Your task to perform on an android device: Clear the cart on amazon.com. Add "razer naga" to the cart on amazon.com, then select checkout. Image 0: 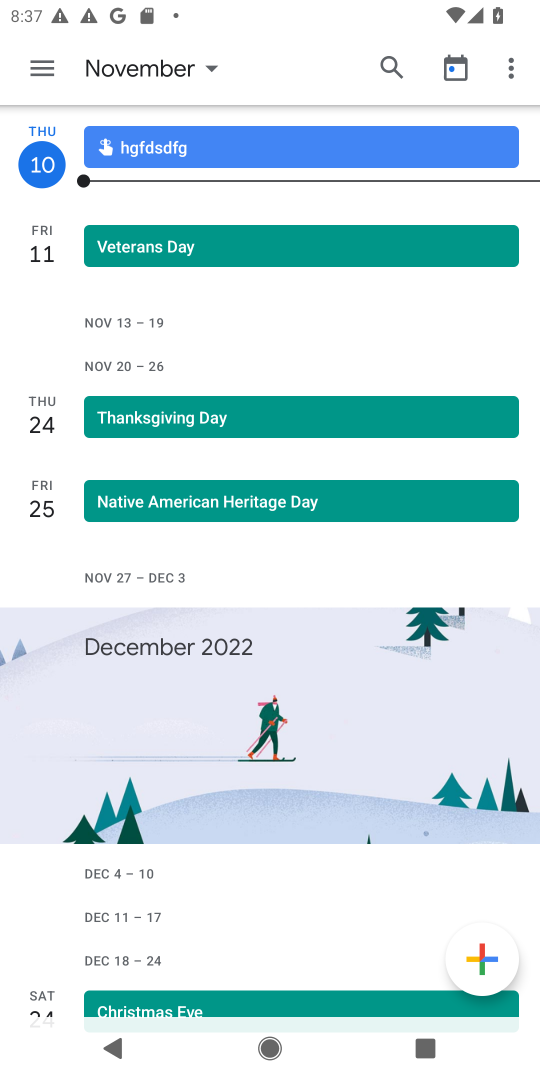
Step 0: press home button
Your task to perform on an android device: Clear the cart on amazon.com. Add "razer naga" to the cart on amazon.com, then select checkout. Image 1: 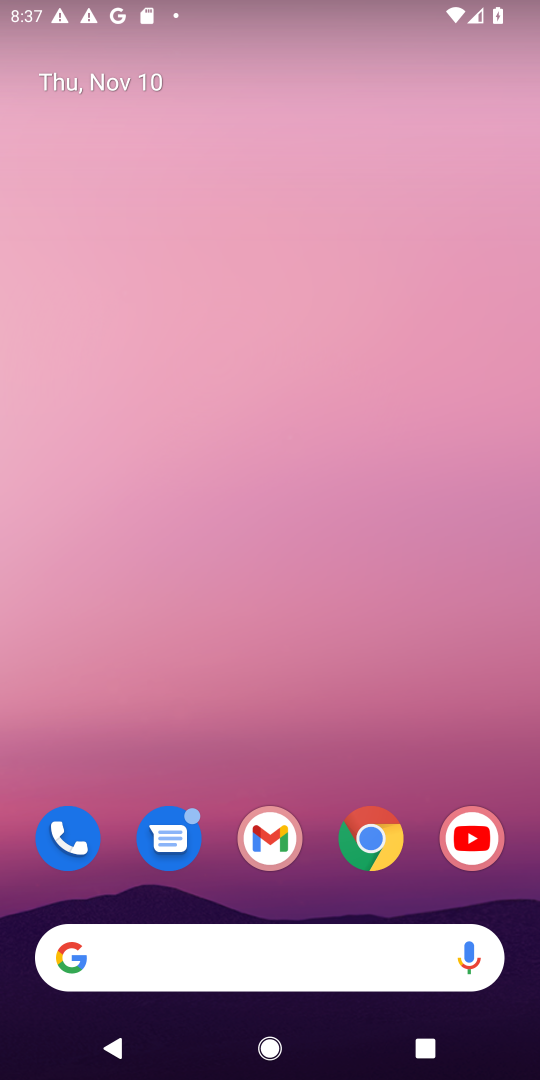
Step 1: drag from (327, 905) to (346, 3)
Your task to perform on an android device: Clear the cart on amazon.com. Add "razer naga" to the cart on amazon.com, then select checkout. Image 2: 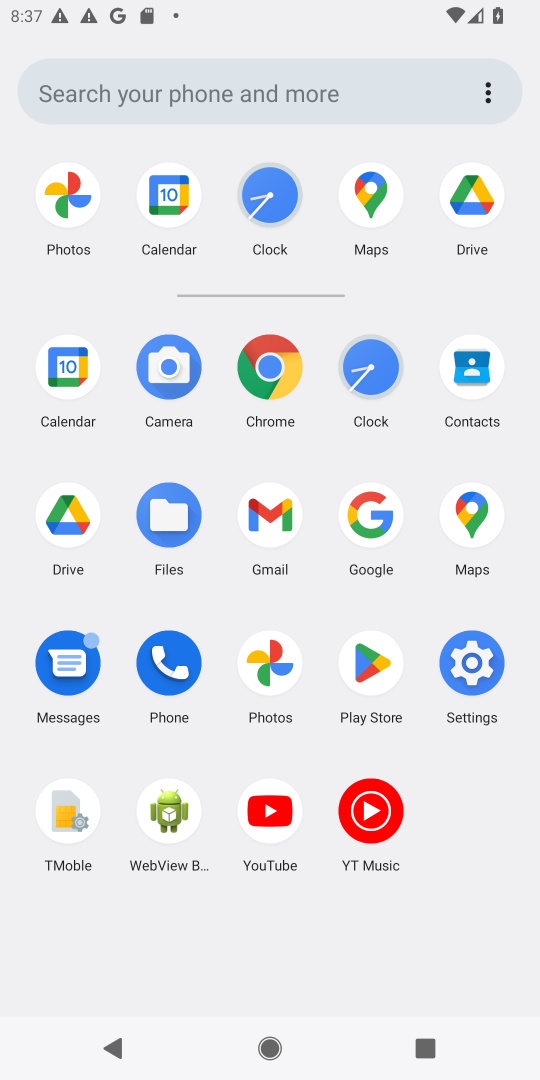
Step 2: click (281, 366)
Your task to perform on an android device: Clear the cart on amazon.com. Add "razer naga" to the cart on amazon.com, then select checkout. Image 3: 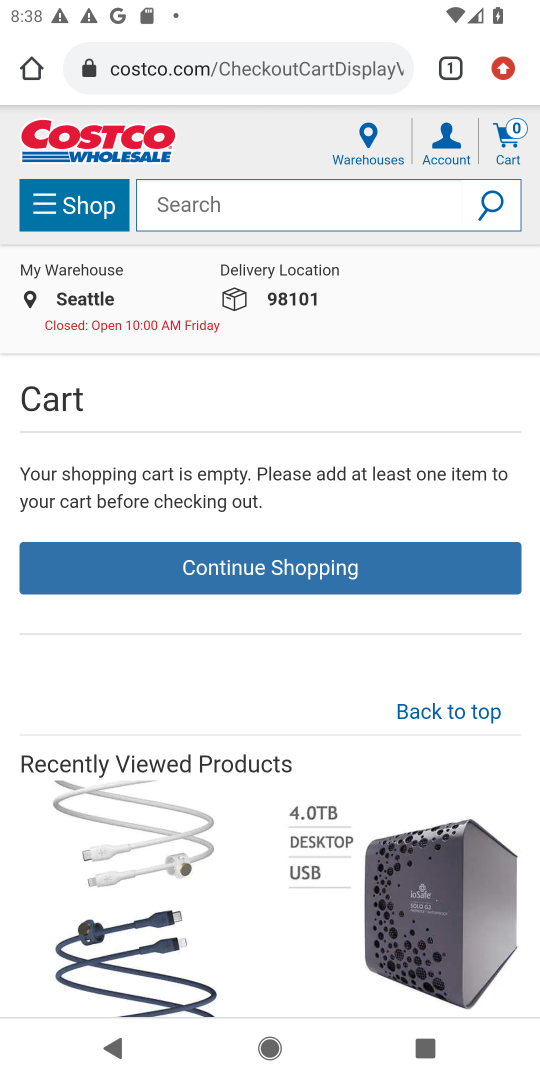
Step 3: click (300, 75)
Your task to perform on an android device: Clear the cart on amazon.com. Add "razer naga" to the cart on amazon.com, then select checkout. Image 4: 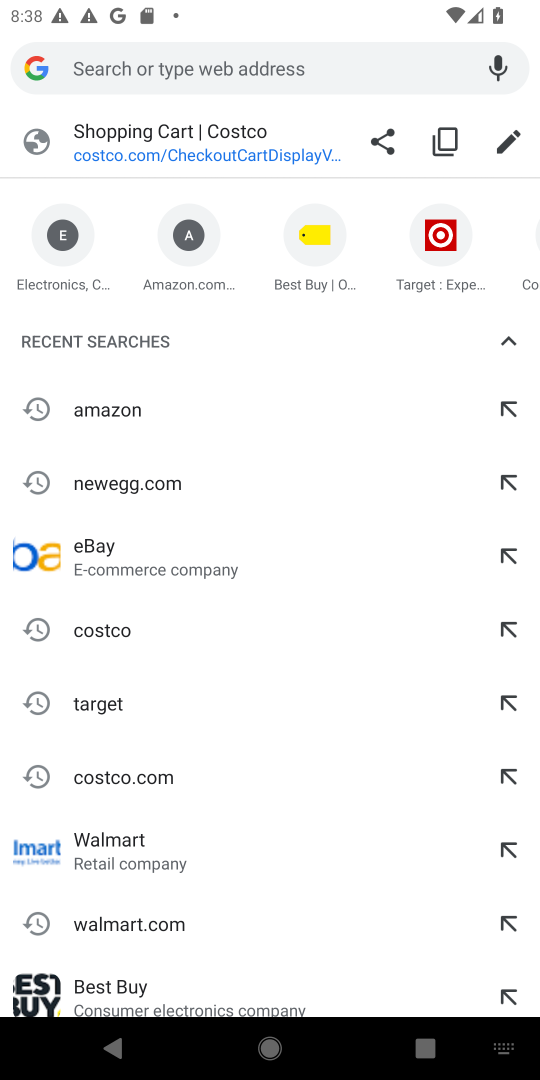
Step 4: type "amazon.com"
Your task to perform on an android device: Clear the cart on amazon.com. Add "razer naga" to the cart on amazon.com, then select checkout. Image 5: 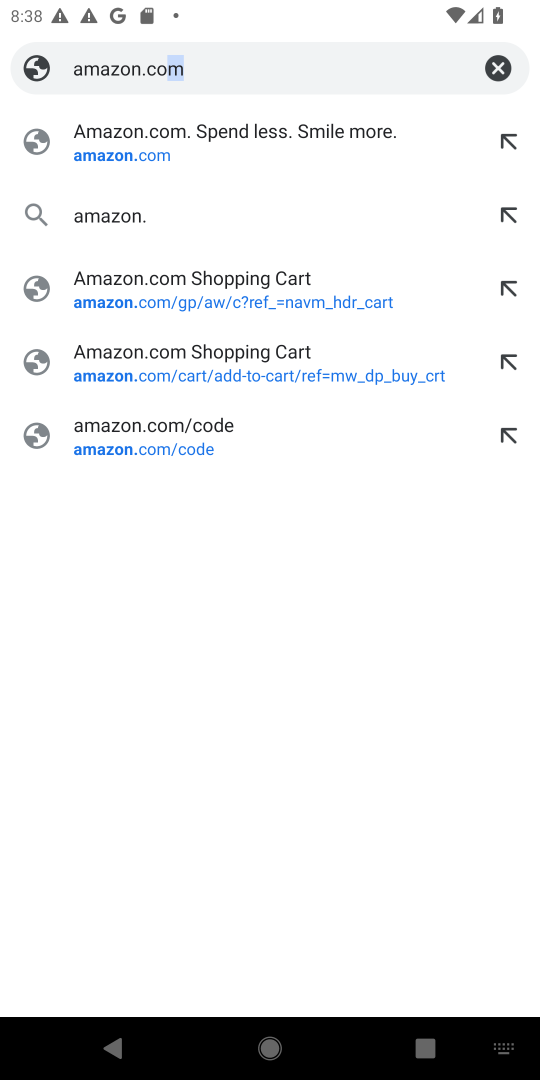
Step 5: press enter
Your task to perform on an android device: Clear the cart on amazon.com. Add "razer naga" to the cart on amazon.com, then select checkout. Image 6: 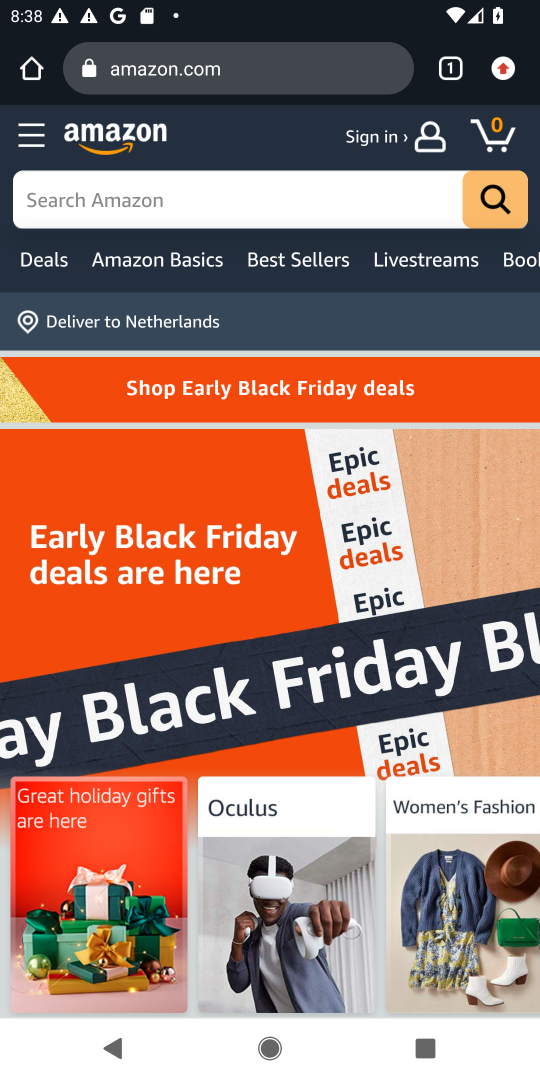
Step 6: click (494, 138)
Your task to perform on an android device: Clear the cart on amazon.com. Add "razer naga" to the cart on amazon.com, then select checkout. Image 7: 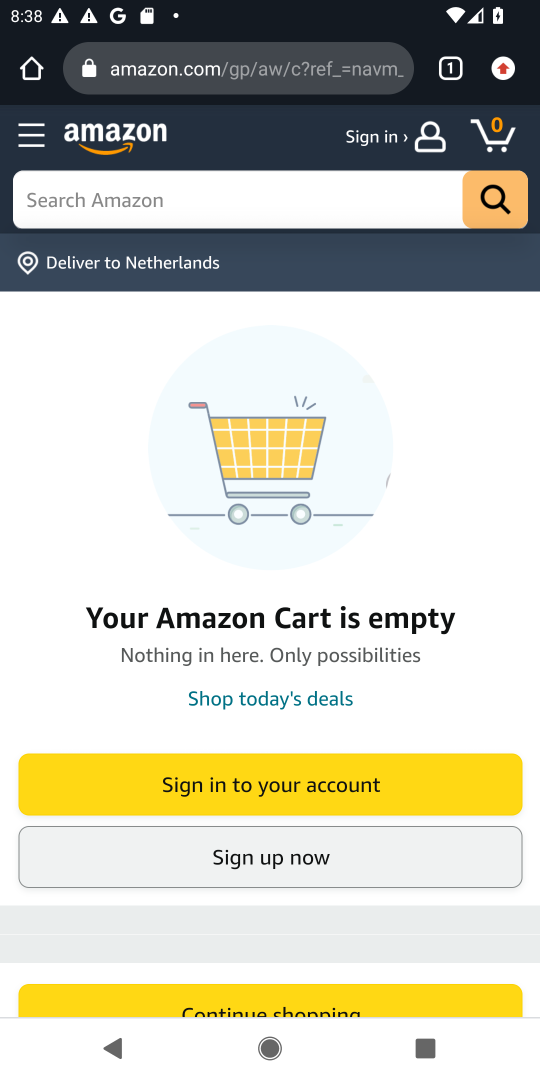
Step 7: click (246, 193)
Your task to perform on an android device: Clear the cart on amazon.com. Add "razer naga" to the cart on amazon.com, then select checkout. Image 8: 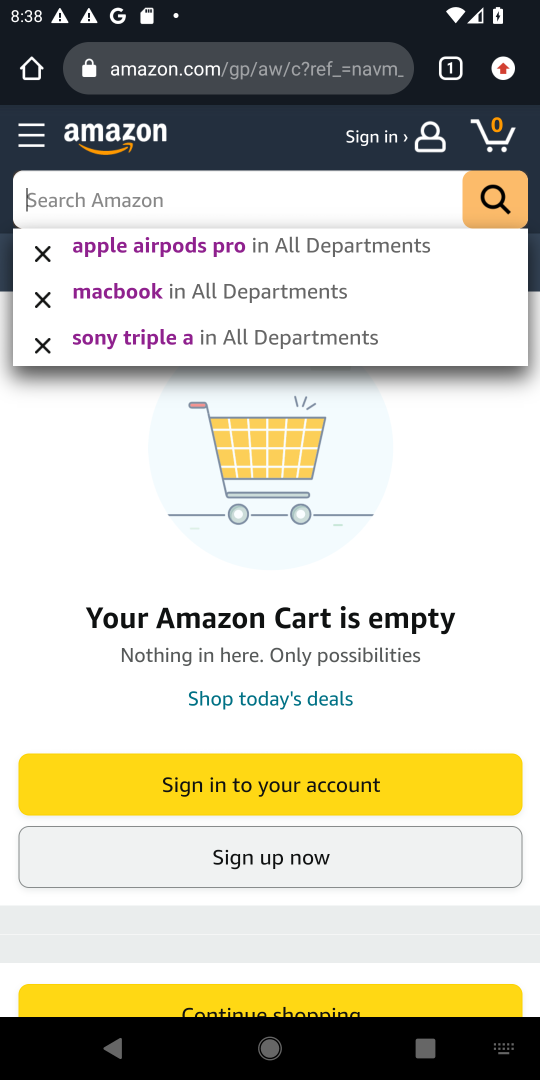
Step 8: type "razer naga"
Your task to perform on an android device: Clear the cart on amazon.com. Add "razer naga" to the cart on amazon.com, then select checkout. Image 9: 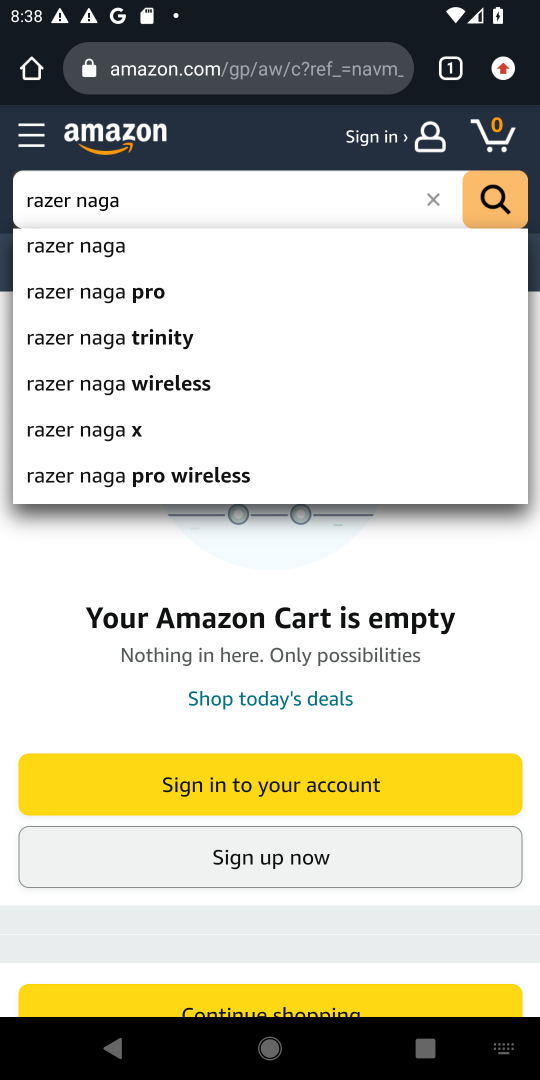
Step 9: press enter
Your task to perform on an android device: Clear the cart on amazon.com. Add "razer naga" to the cart on amazon.com, then select checkout. Image 10: 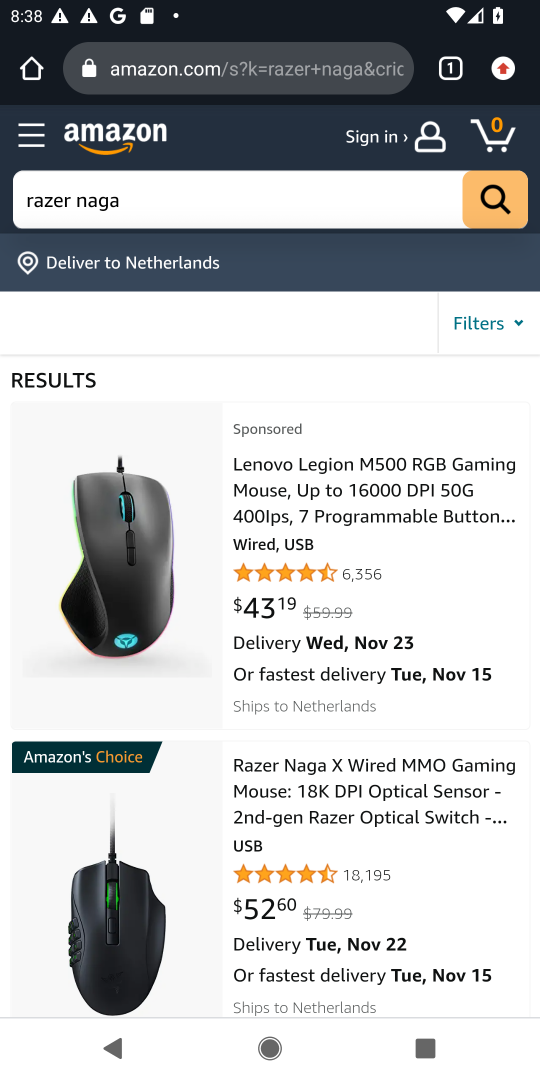
Step 10: click (304, 803)
Your task to perform on an android device: Clear the cart on amazon.com. Add "razer naga" to the cart on amazon.com, then select checkout. Image 11: 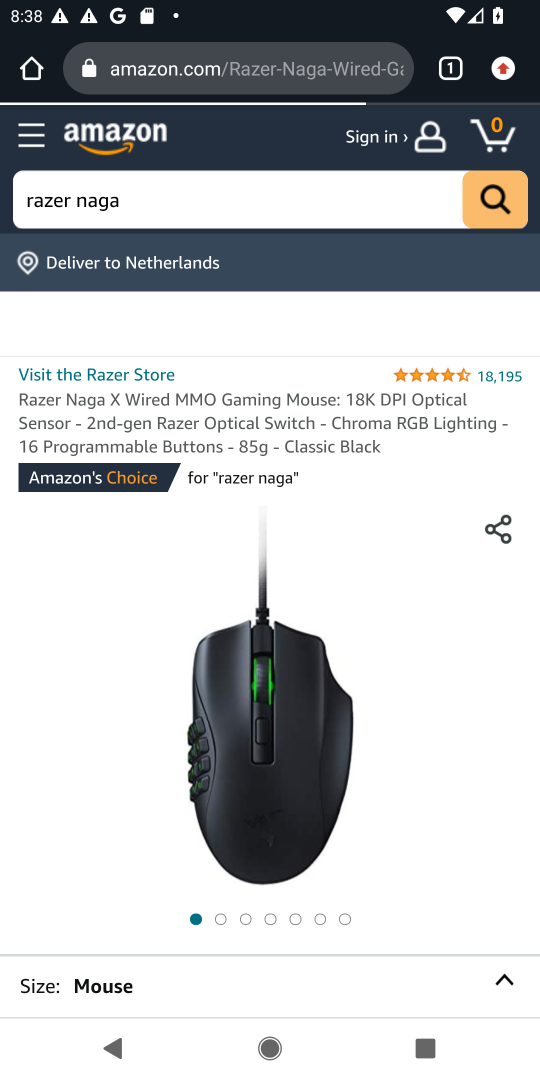
Step 11: drag from (361, 837) to (381, 304)
Your task to perform on an android device: Clear the cart on amazon.com. Add "razer naga" to the cart on amazon.com, then select checkout. Image 12: 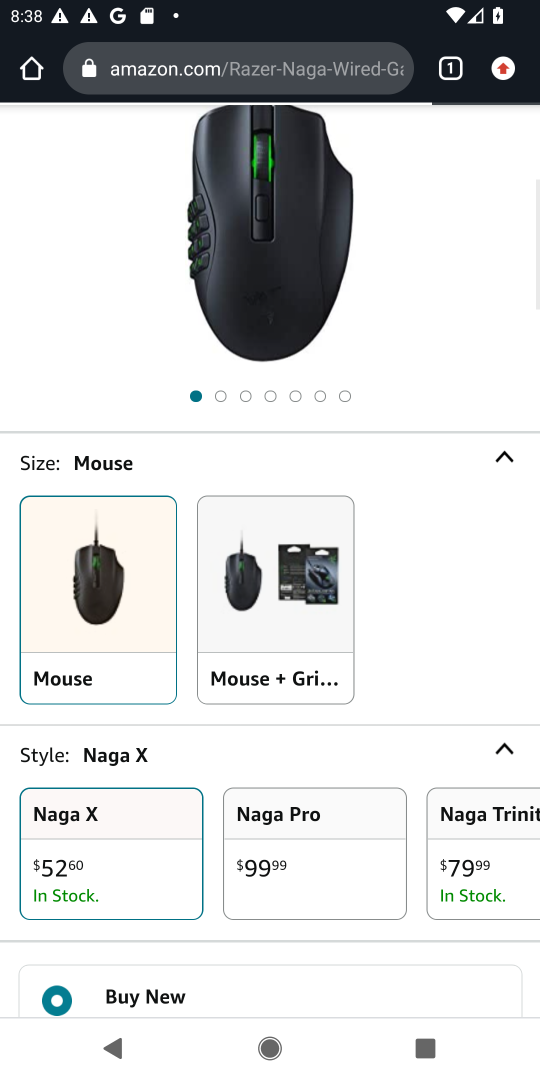
Step 12: drag from (404, 737) to (407, 91)
Your task to perform on an android device: Clear the cart on amazon.com. Add "razer naga" to the cart on amazon.com, then select checkout. Image 13: 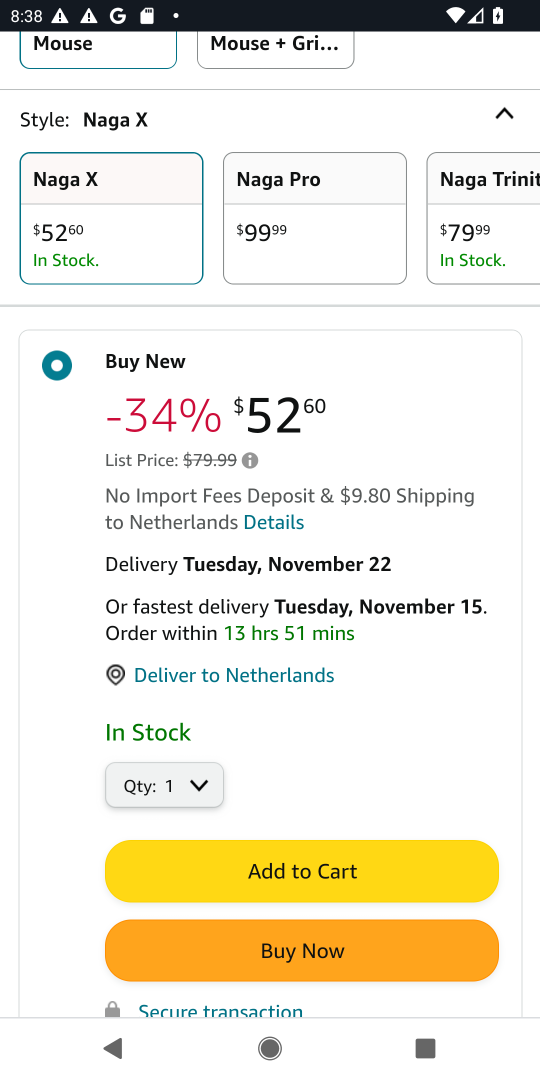
Step 13: click (352, 883)
Your task to perform on an android device: Clear the cart on amazon.com. Add "razer naga" to the cart on amazon.com, then select checkout. Image 14: 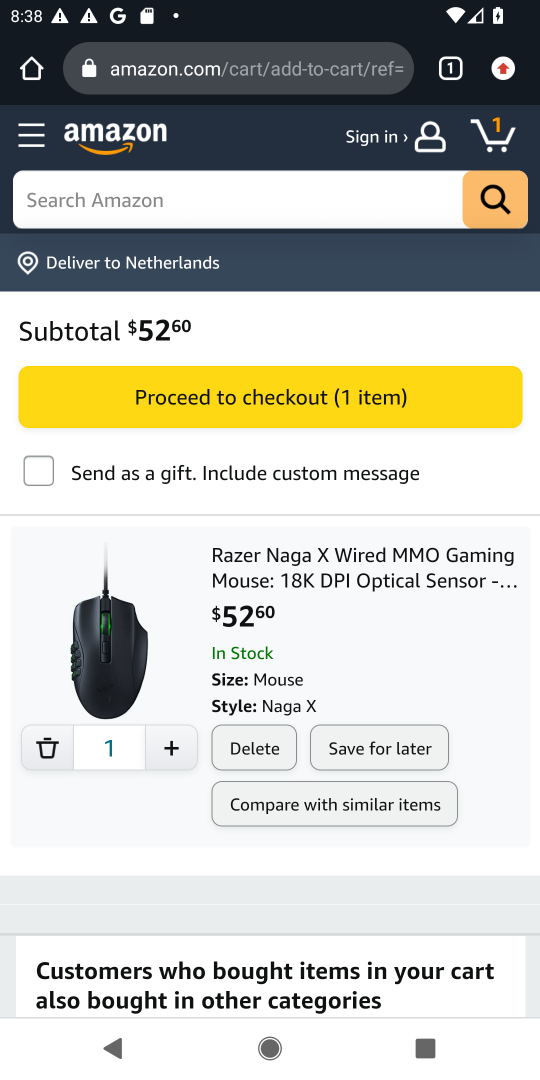
Step 14: click (360, 403)
Your task to perform on an android device: Clear the cart on amazon.com. Add "razer naga" to the cart on amazon.com, then select checkout. Image 15: 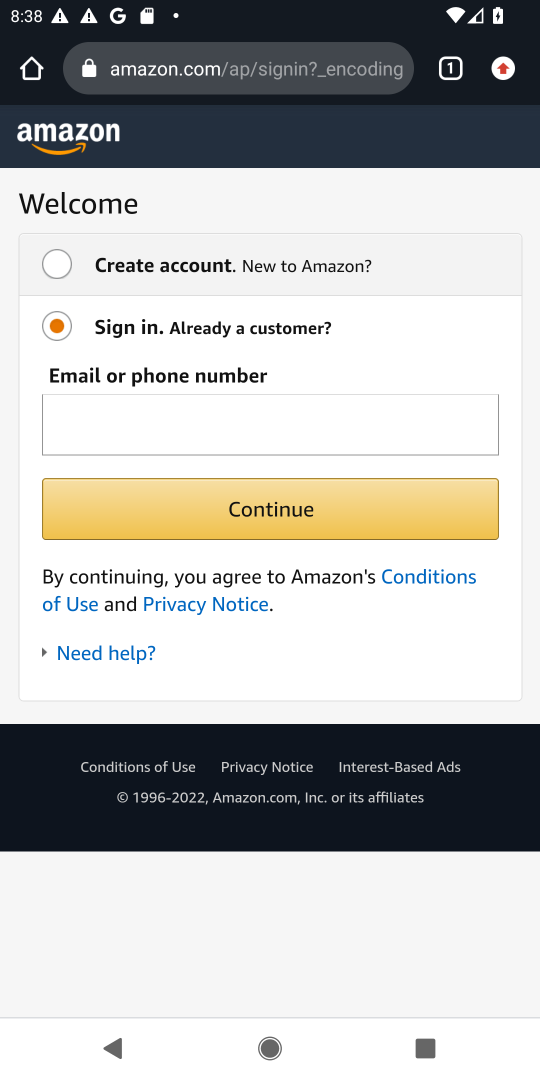
Step 15: task complete